Your task to perform on an android device: delete a single message in the gmail app Image 0: 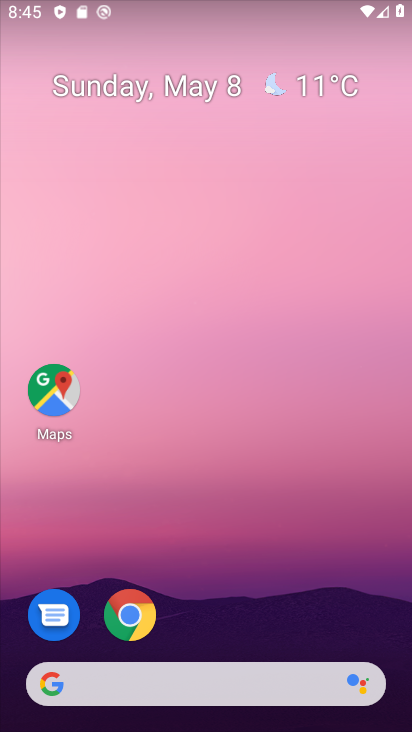
Step 0: drag from (158, 663) to (231, 262)
Your task to perform on an android device: delete a single message in the gmail app Image 1: 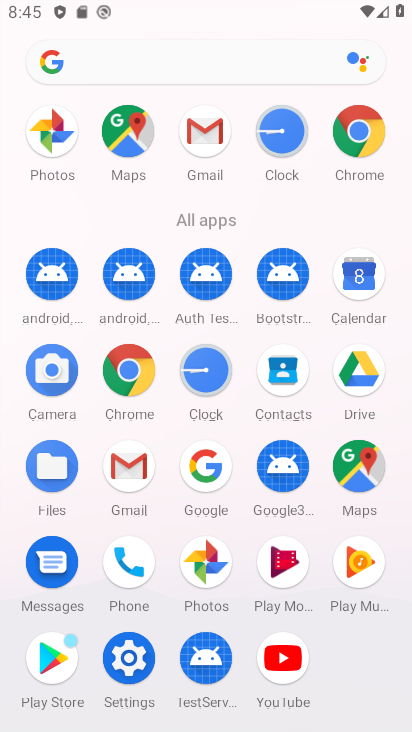
Step 1: drag from (269, 638) to (293, 198)
Your task to perform on an android device: delete a single message in the gmail app Image 2: 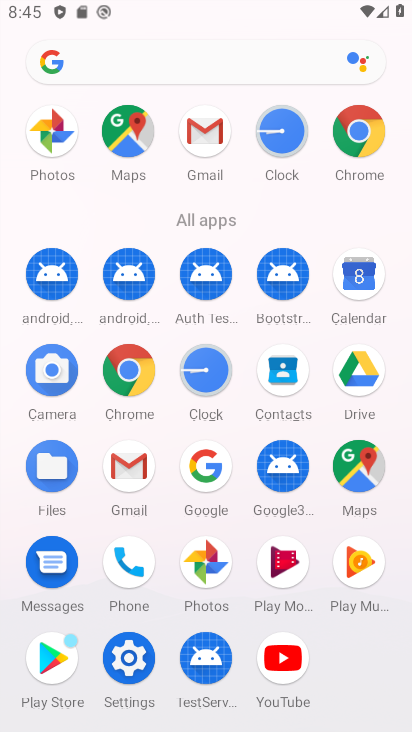
Step 2: click (207, 138)
Your task to perform on an android device: delete a single message in the gmail app Image 3: 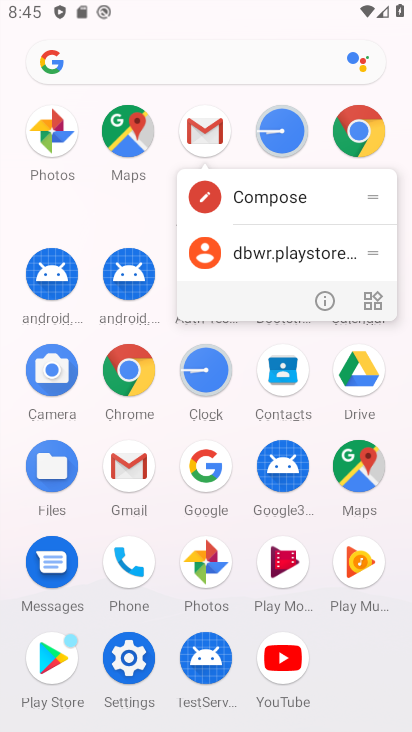
Step 3: click (197, 130)
Your task to perform on an android device: delete a single message in the gmail app Image 4: 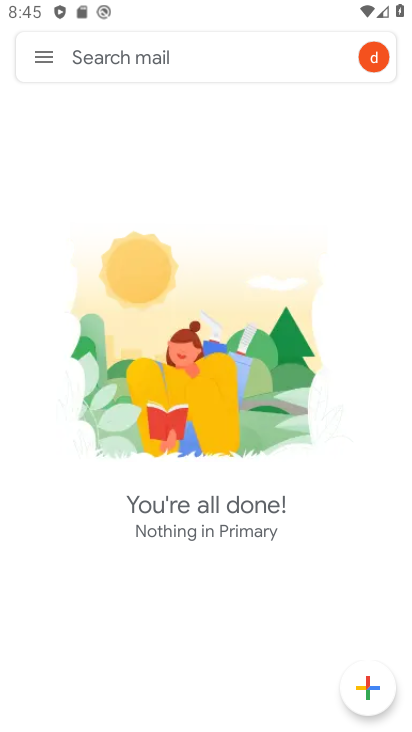
Step 4: click (44, 61)
Your task to perform on an android device: delete a single message in the gmail app Image 5: 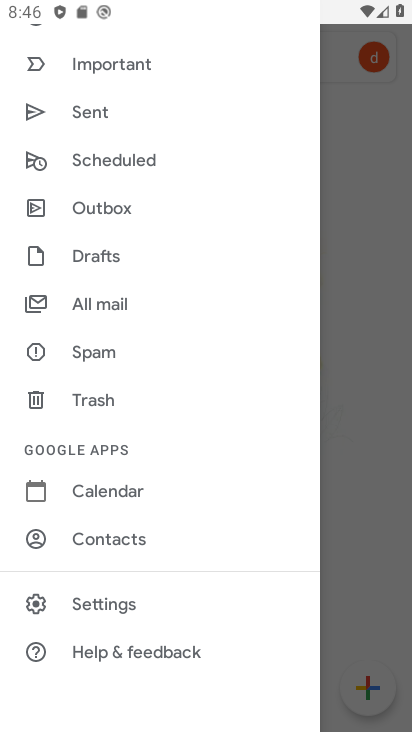
Step 5: drag from (140, 98) to (147, 621)
Your task to perform on an android device: delete a single message in the gmail app Image 6: 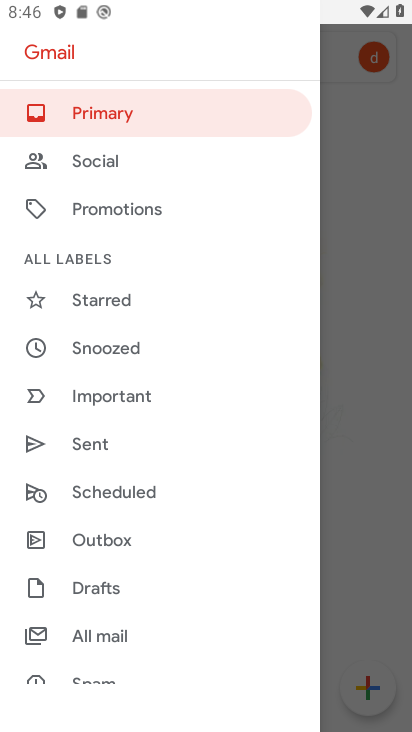
Step 6: click (111, 628)
Your task to perform on an android device: delete a single message in the gmail app Image 7: 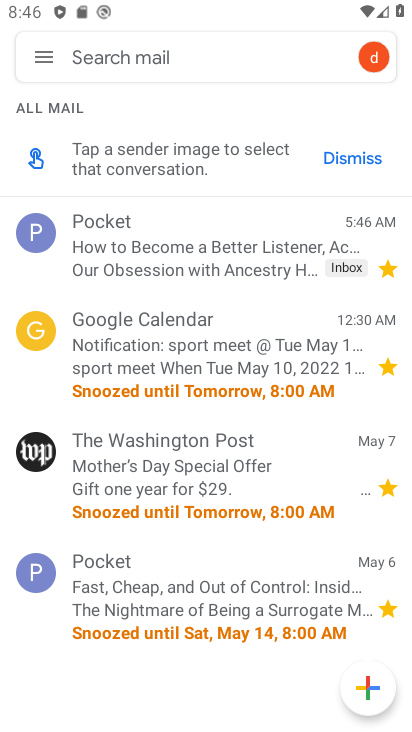
Step 7: click (193, 247)
Your task to perform on an android device: delete a single message in the gmail app Image 8: 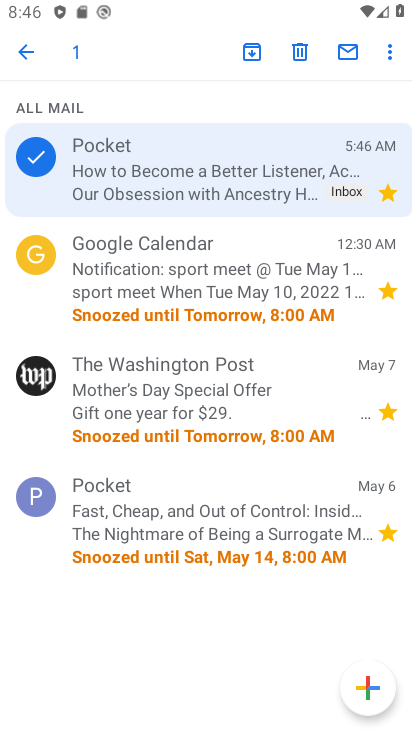
Step 8: click (294, 51)
Your task to perform on an android device: delete a single message in the gmail app Image 9: 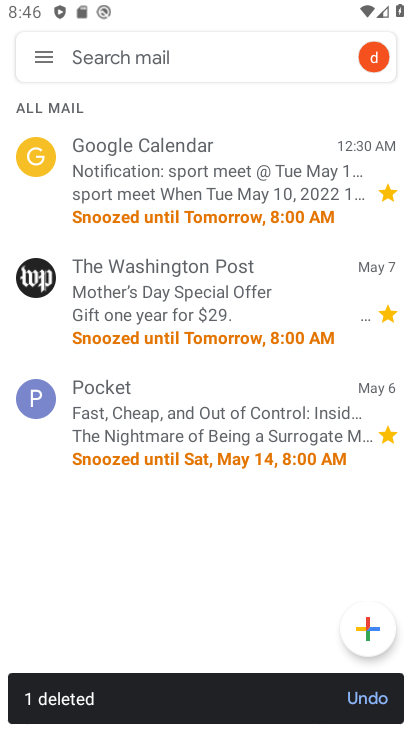
Step 9: task complete